Your task to perform on an android device: stop showing notifications on the lock screen Image 0: 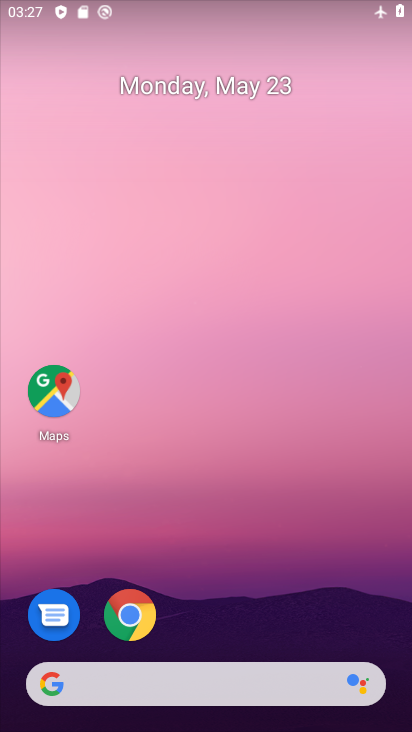
Step 0: drag from (318, 592) to (322, 249)
Your task to perform on an android device: stop showing notifications on the lock screen Image 1: 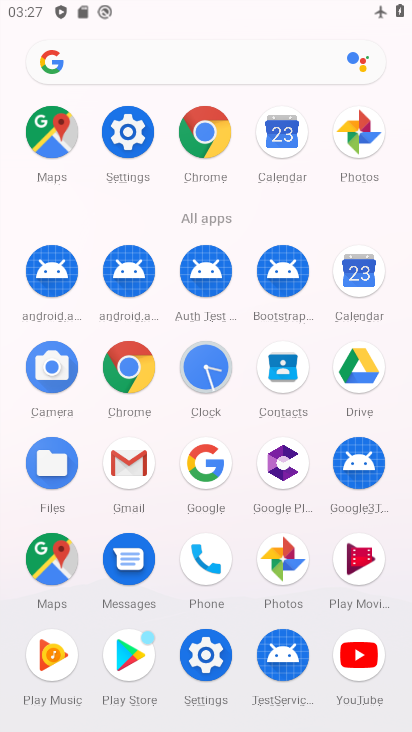
Step 1: click (135, 122)
Your task to perform on an android device: stop showing notifications on the lock screen Image 2: 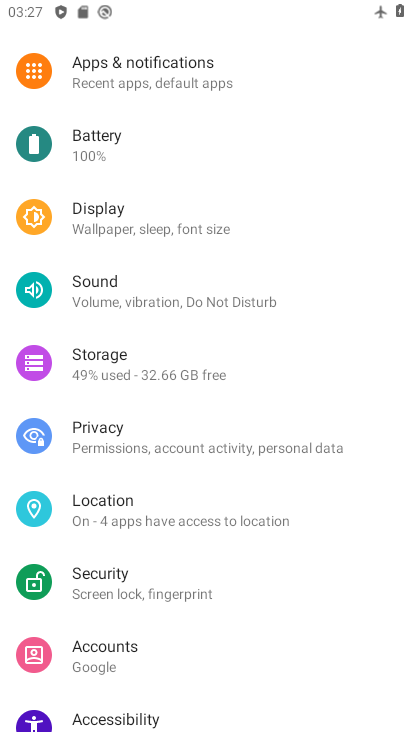
Step 2: drag from (163, 132) to (170, 409)
Your task to perform on an android device: stop showing notifications on the lock screen Image 3: 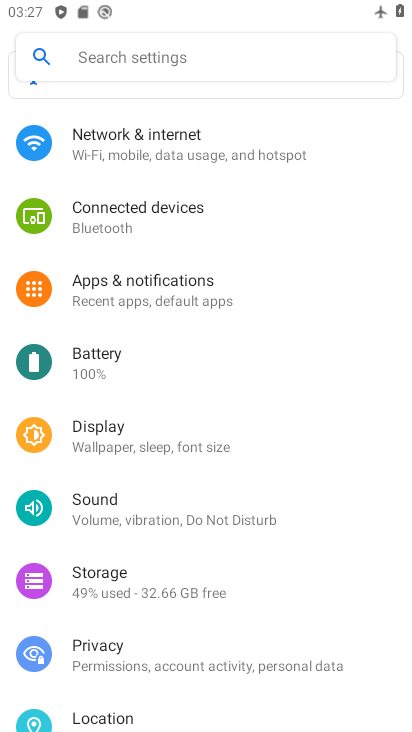
Step 3: click (171, 293)
Your task to perform on an android device: stop showing notifications on the lock screen Image 4: 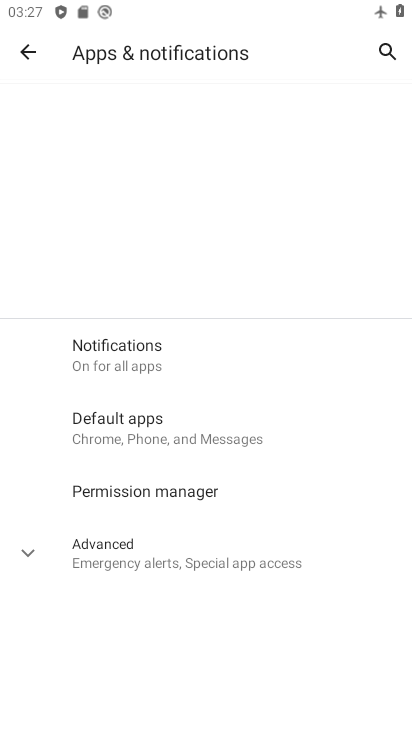
Step 4: click (166, 341)
Your task to perform on an android device: stop showing notifications on the lock screen Image 5: 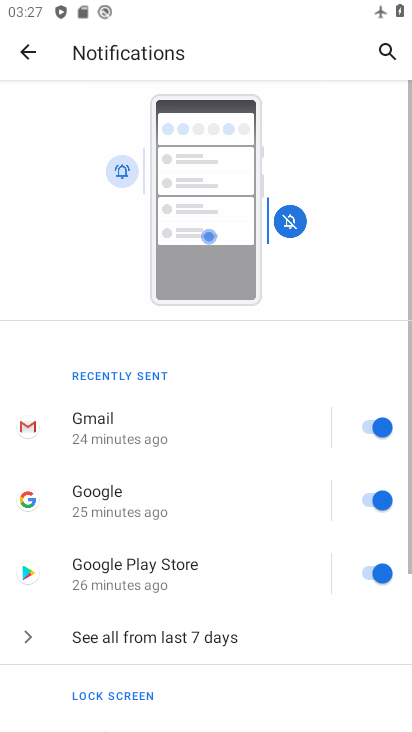
Step 5: drag from (217, 653) to (283, 201)
Your task to perform on an android device: stop showing notifications on the lock screen Image 6: 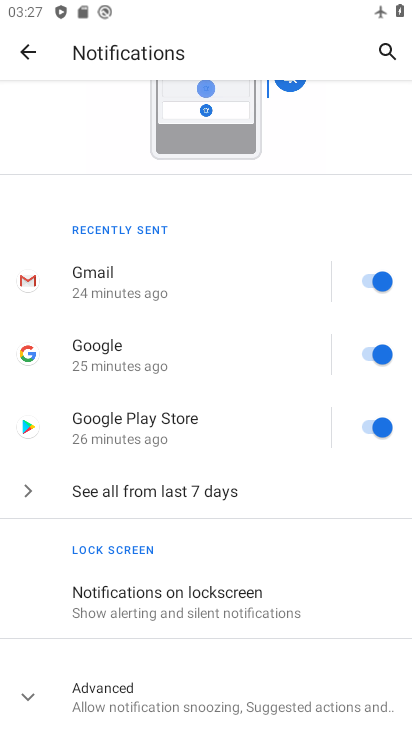
Step 6: click (193, 614)
Your task to perform on an android device: stop showing notifications on the lock screen Image 7: 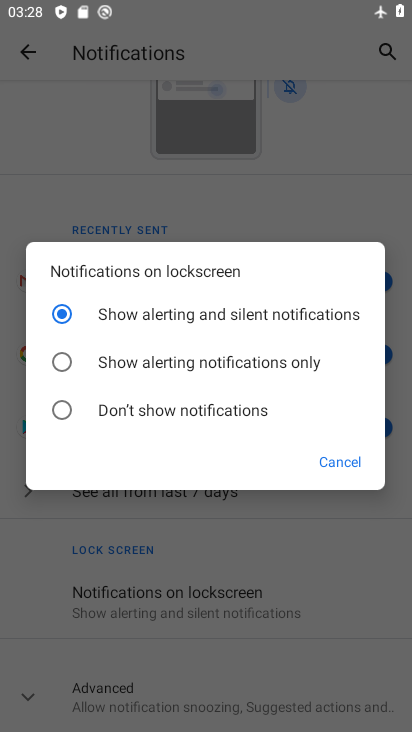
Step 7: drag from (185, 407) to (202, 352)
Your task to perform on an android device: stop showing notifications on the lock screen Image 8: 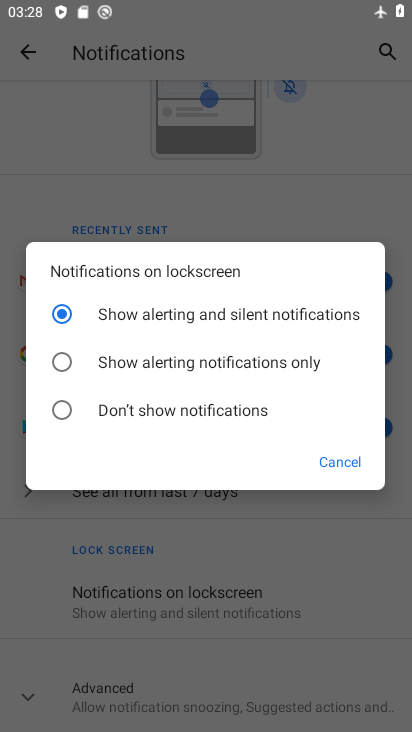
Step 8: click (200, 402)
Your task to perform on an android device: stop showing notifications on the lock screen Image 9: 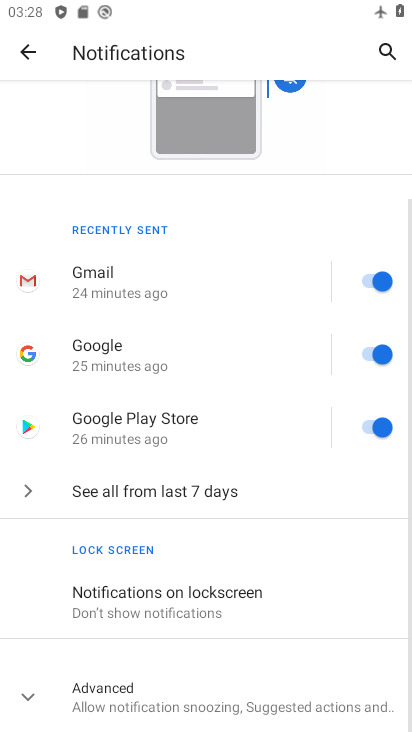
Step 9: task complete